Your task to perform on an android device: Open the phone app and click the voicemail tab. Image 0: 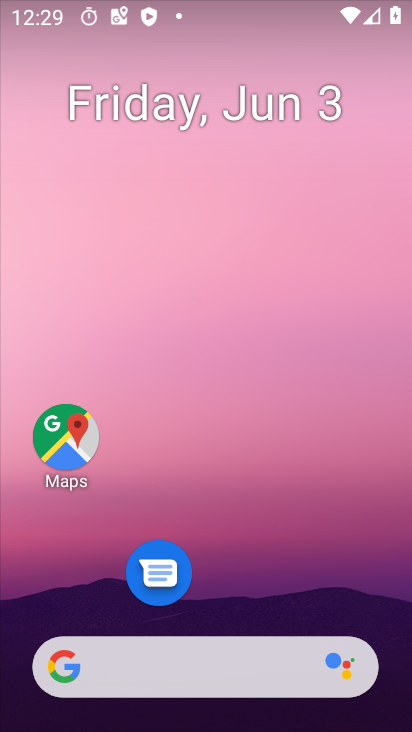
Step 0: drag from (271, 681) to (286, 119)
Your task to perform on an android device: Open the phone app and click the voicemail tab. Image 1: 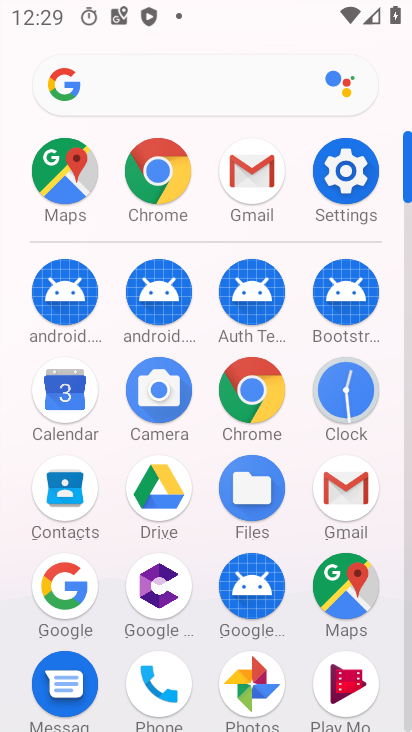
Step 1: click (169, 687)
Your task to perform on an android device: Open the phone app and click the voicemail tab. Image 2: 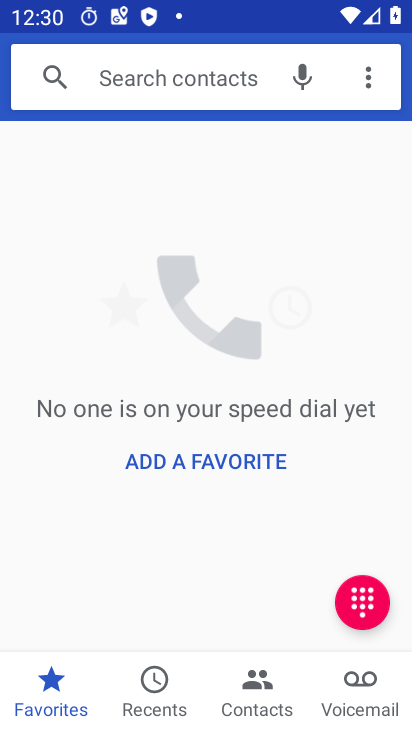
Step 2: click (382, 673)
Your task to perform on an android device: Open the phone app and click the voicemail tab. Image 3: 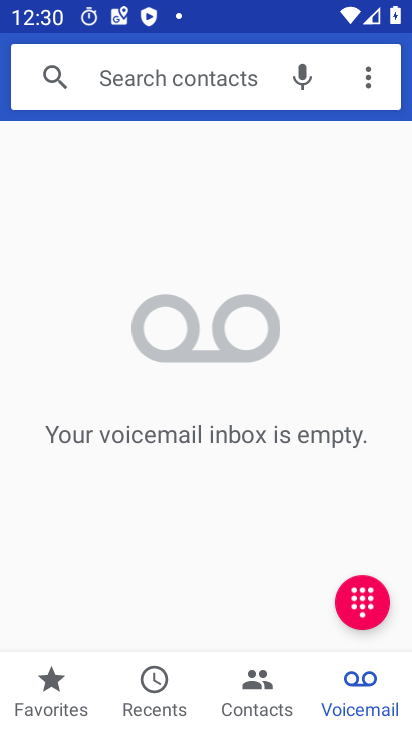
Step 3: task complete